Your task to perform on an android device: turn smart compose on in the gmail app Image 0: 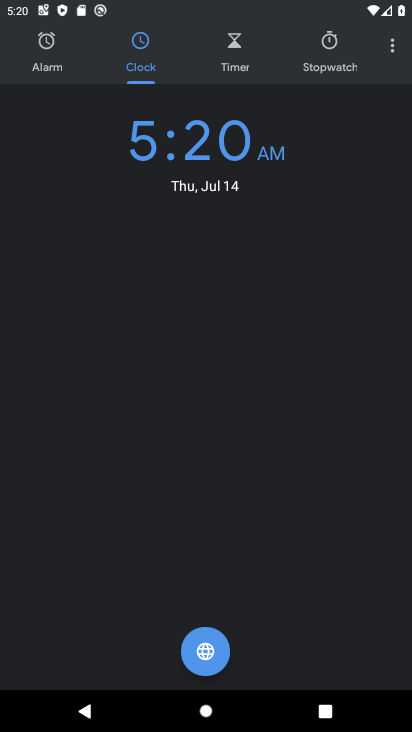
Step 0: press home button
Your task to perform on an android device: turn smart compose on in the gmail app Image 1: 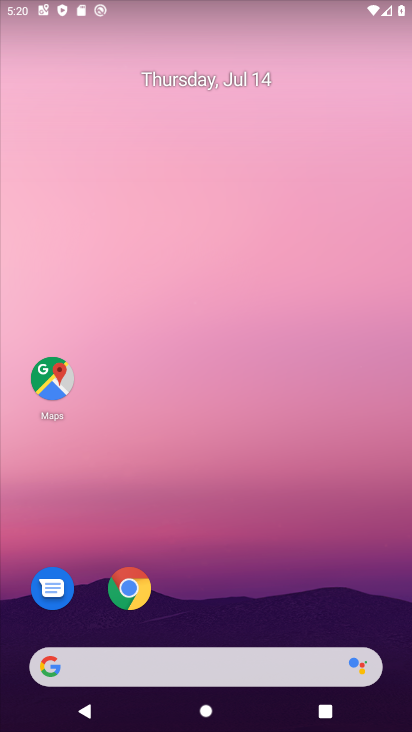
Step 1: drag from (120, 643) to (146, 278)
Your task to perform on an android device: turn smart compose on in the gmail app Image 2: 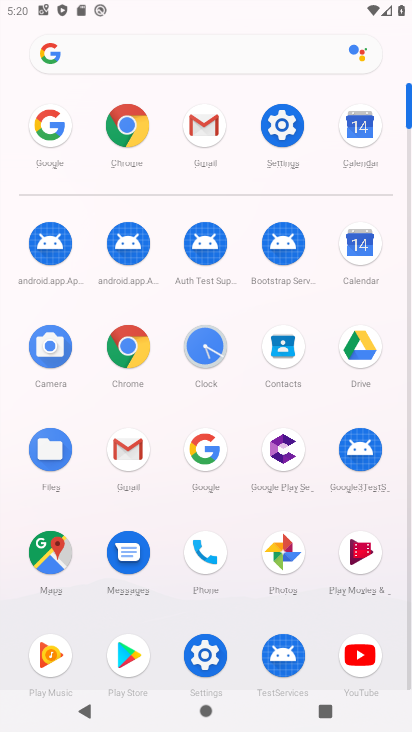
Step 2: click (192, 130)
Your task to perform on an android device: turn smart compose on in the gmail app Image 3: 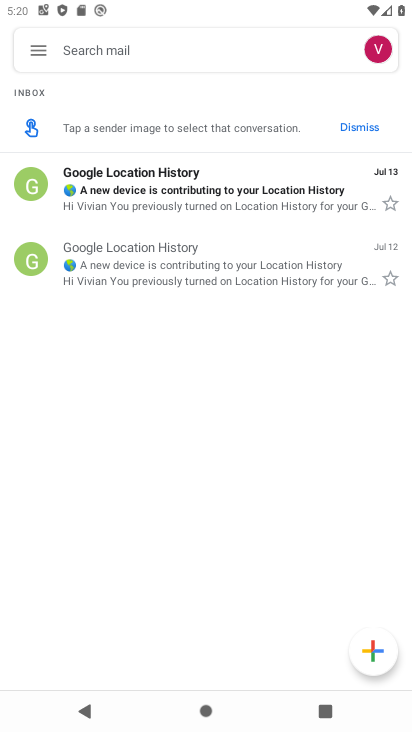
Step 3: click (31, 47)
Your task to perform on an android device: turn smart compose on in the gmail app Image 4: 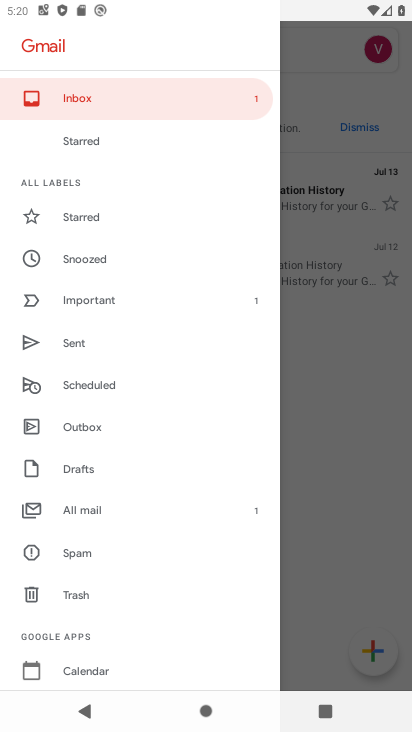
Step 4: drag from (72, 656) to (88, 306)
Your task to perform on an android device: turn smart compose on in the gmail app Image 5: 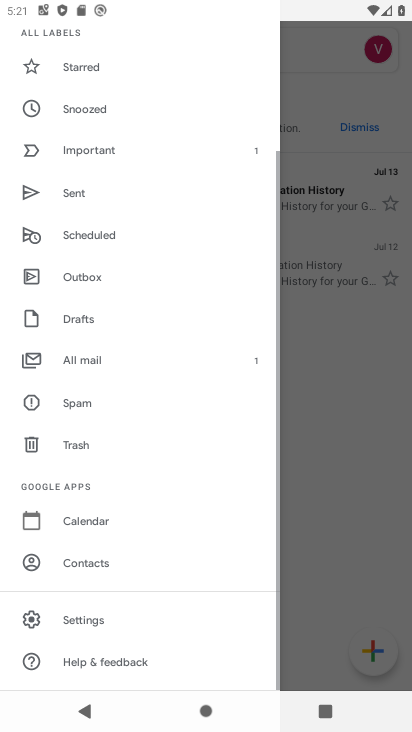
Step 5: click (69, 626)
Your task to perform on an android device: turn smart compose on in the gmail app Image 6: 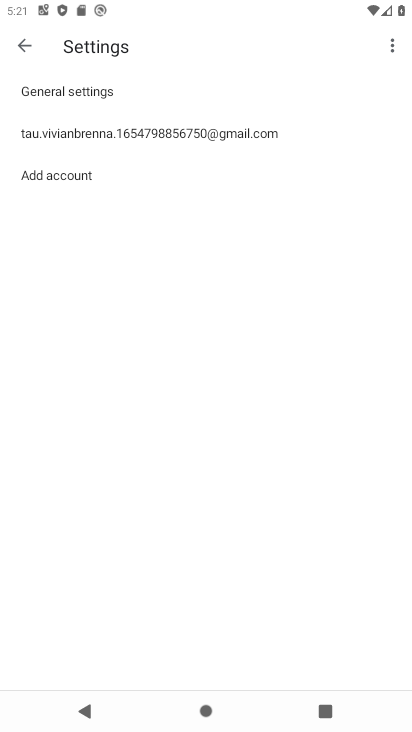
Step 6: click (106, 131)
Your task to perform on an android device: turn smart compose on in the gmail app Image 7: 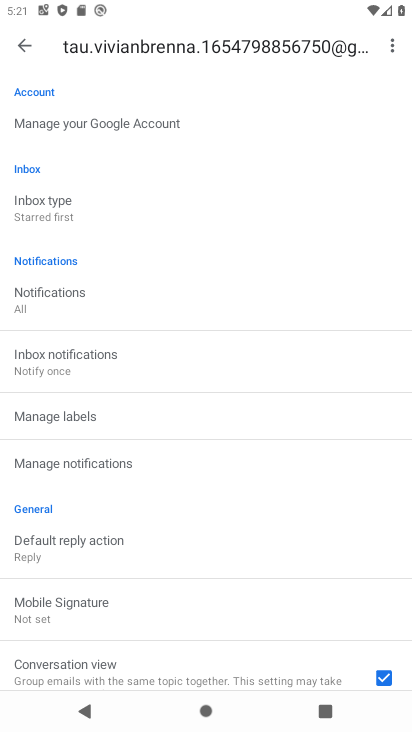
Step 7: task complete